Your task to perform on an android device: Open settings Image 0: 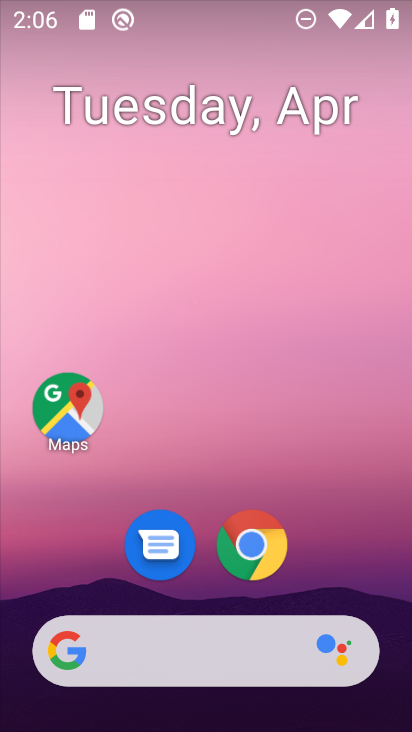
Step 0: drag from (369, 589) to (294, 76)
Your task to perform on an android device: Open settings Image 1: 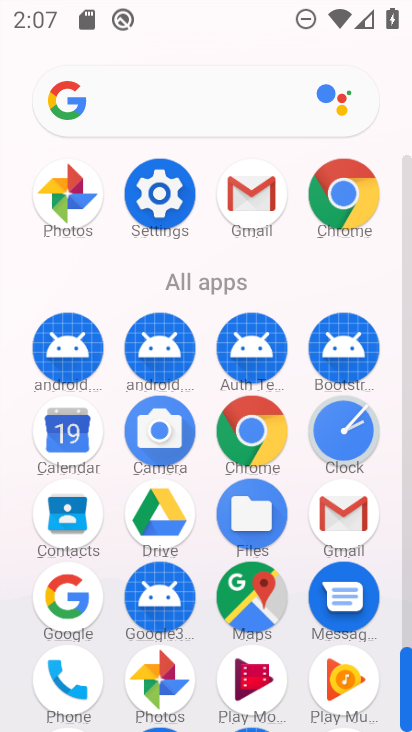
Step 1: click (152, 176)
Your task to perform on an android device: Open settings Image 2: 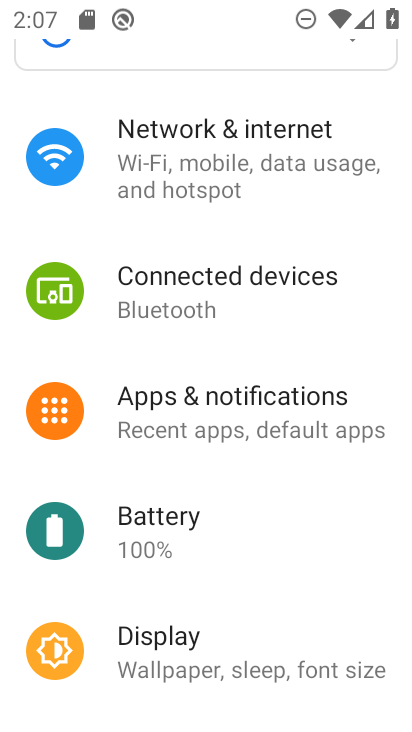
Step 2: task complete